Your task to perform on an android device: What is the news today? Image 0: 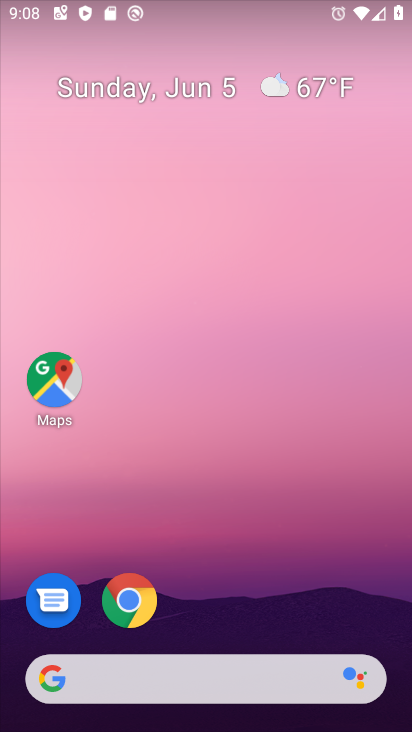
Step 0: drag from (400, 632) to (254, 110)
Your task to perform on an android device: What is the news today? Image 1: 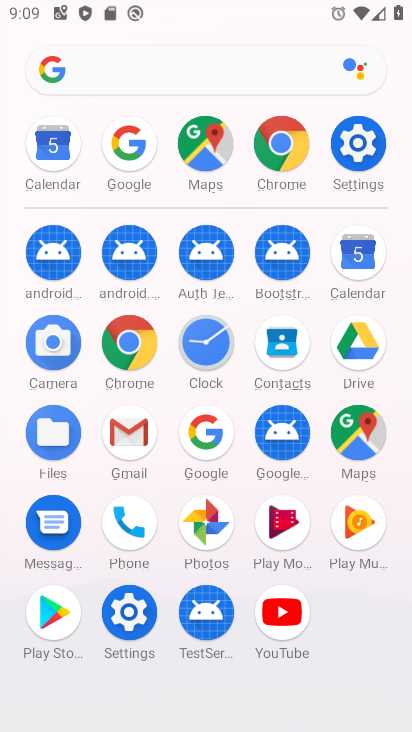
Step 1: click (201, 444)
Your task to perform on an android device: What is the news today? Image 2: 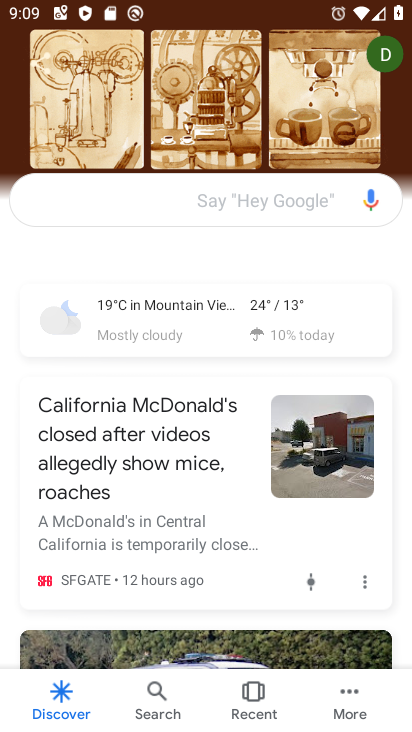
Step 2: click (119, 192)
Your task to perform on an android device: What is the news today? Image 3: 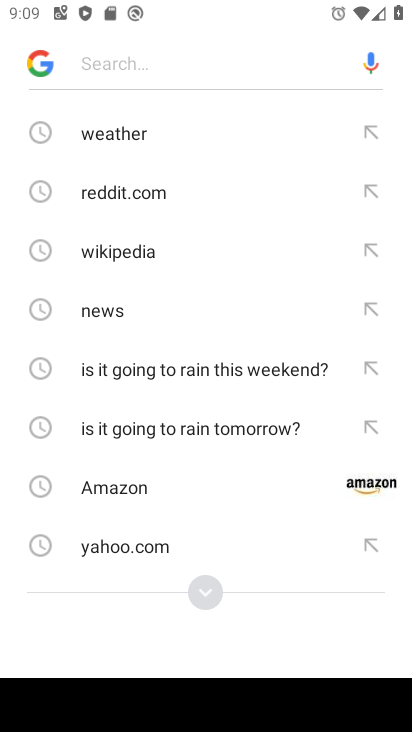
Step 3: click (208, 588)
Your task to perform on an android device: What is the news today? Image 4: 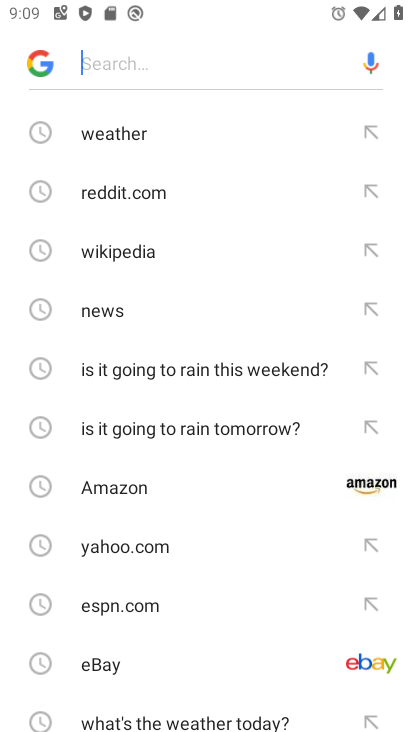
Step 4: drag from (179, 641) to (193, 267)
Your task to perform on an android device: What is the news today? Image 5: 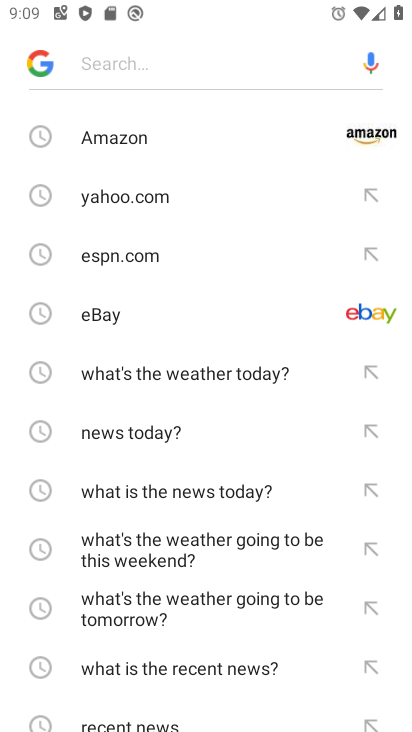
Step 5: click (202, 497)
Your task to perform on an android device: What is the news today? Image 6: 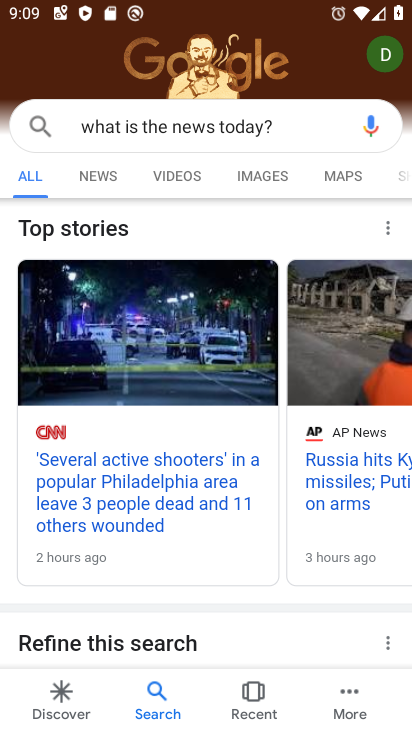
Step 6: task complete